Your task to perform on an android device: See recent photos Image 0: 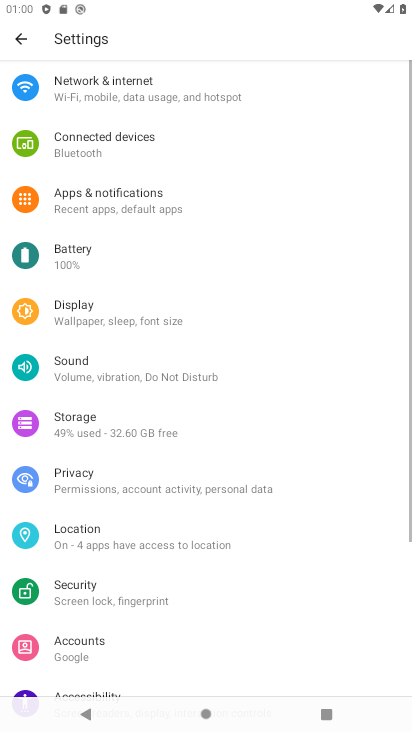
Step 0: press home button
Your task to perform on an android device: See recent photos Image 1: 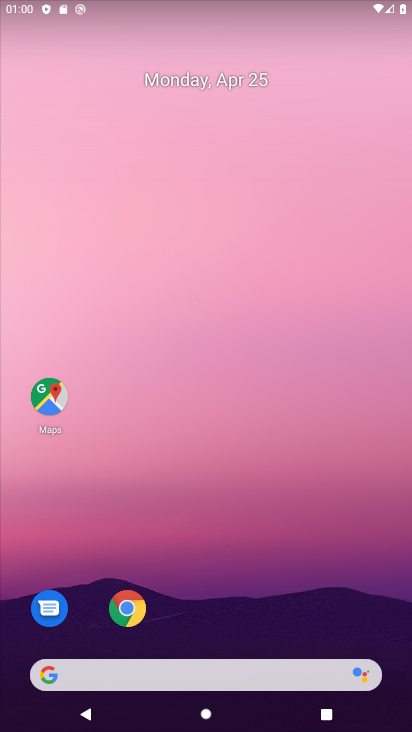
Step 1: drag from (222, 579) to (216, 143)
Your task to perform on an android device: See recent photos Image 2: 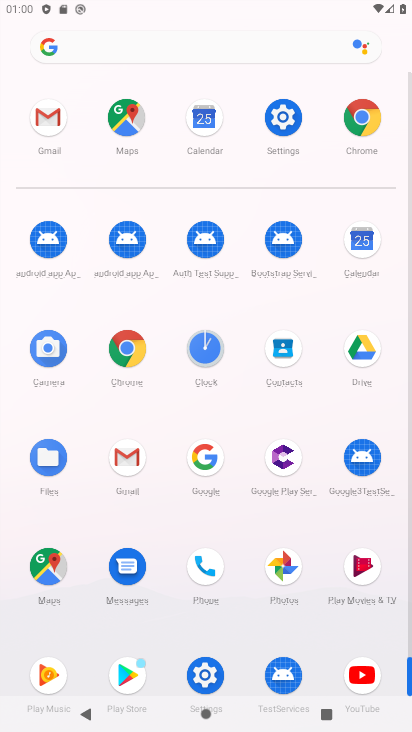
Step 2: click (268, 566)
Your task to perform on an android device: See recent photos Image 3: 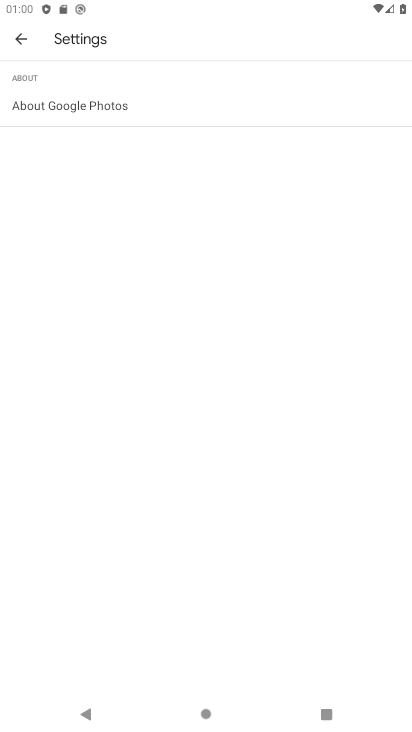
Step 3: press back button
Your task to perform on an android device: See recent photos Image 4: 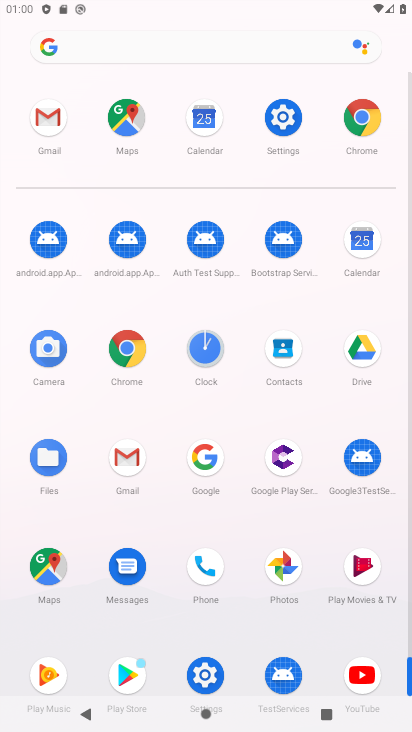
Step 4: click (288, 576)
Your task to perform on an android device: See recent photos Image 5: 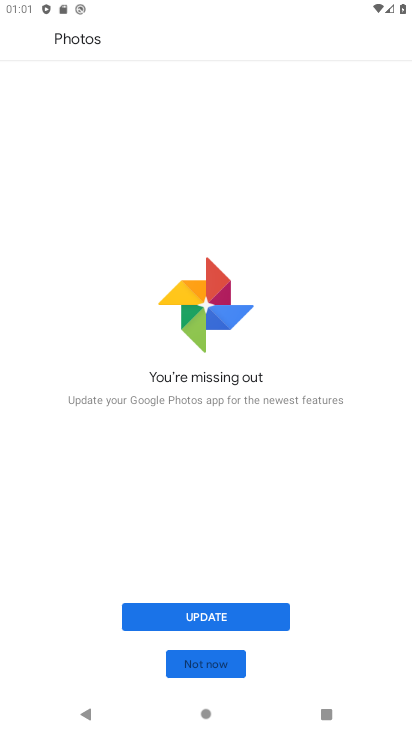
Step 5: click (210, 663)
Your task to perform on an android device: See recent photos Image 6: 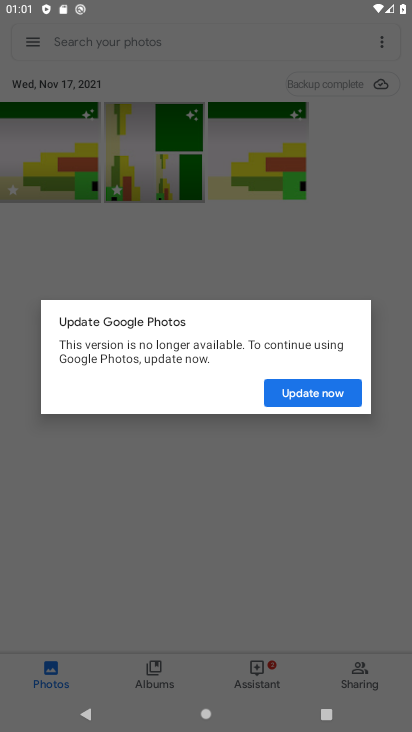
Step 6: click (313, 401)
Your task to perform on an android device: See recent photos Image 7: 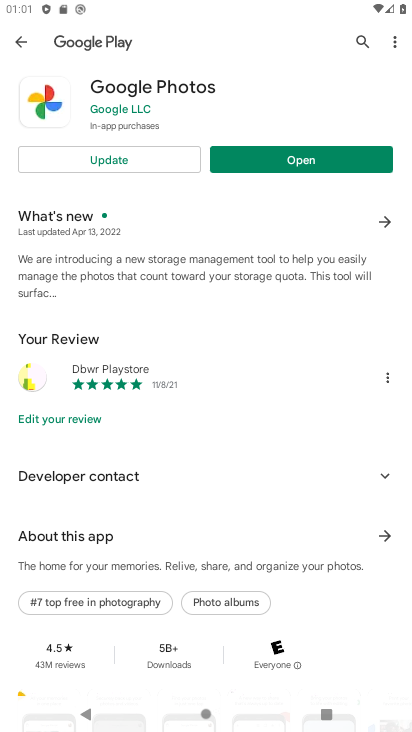
Step 7: click (103, 160)
Your task to perform on an android device: See recent photos Image 8: 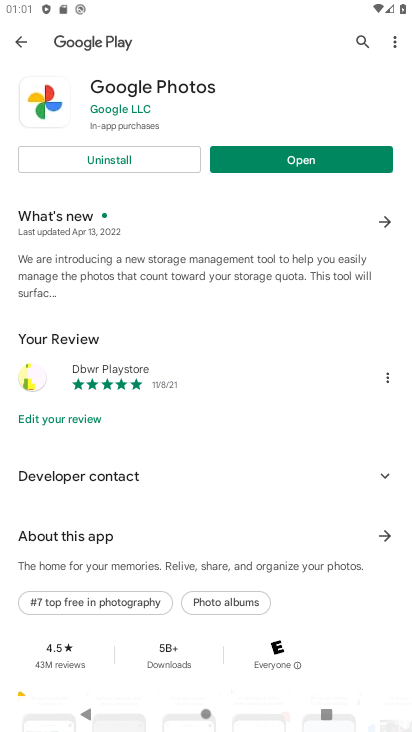
Step 8: click (346, 159)
Your task to perform on an android device: See recent photos Image 9: 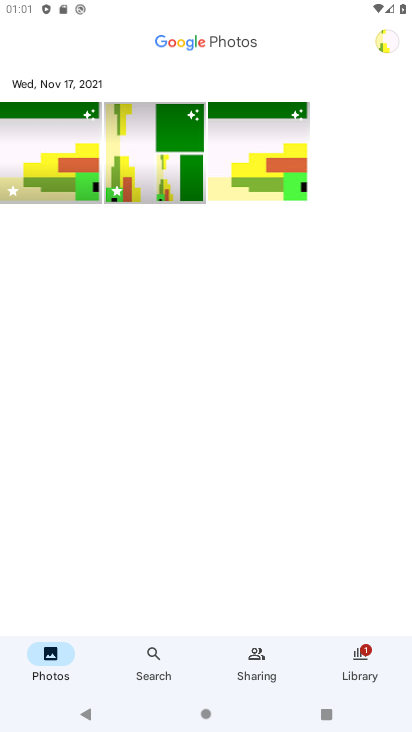
Step 9: task complete